Your task to perform on an android device: set an alarm Image 0: 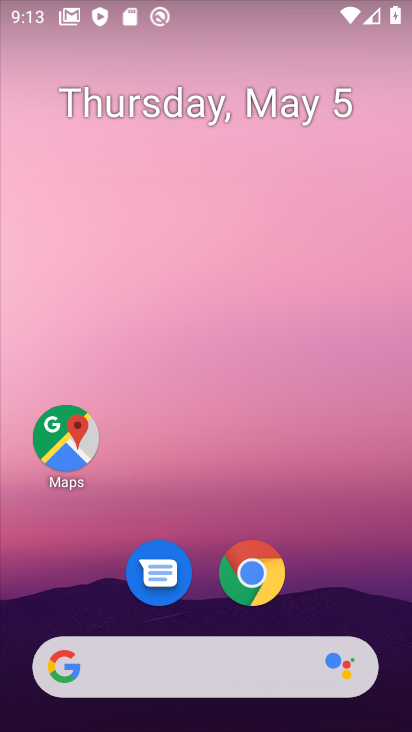
Step 0: drag from (174, 557) to (262, 95)
Your task to perform on an android device: set an alarm Image 1: 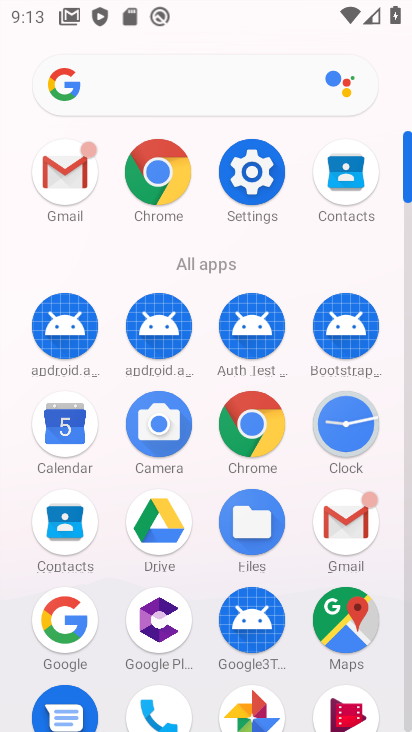
Step 1: click (349, 432)
Your task to perform on an android device: set an alarm Image 2: 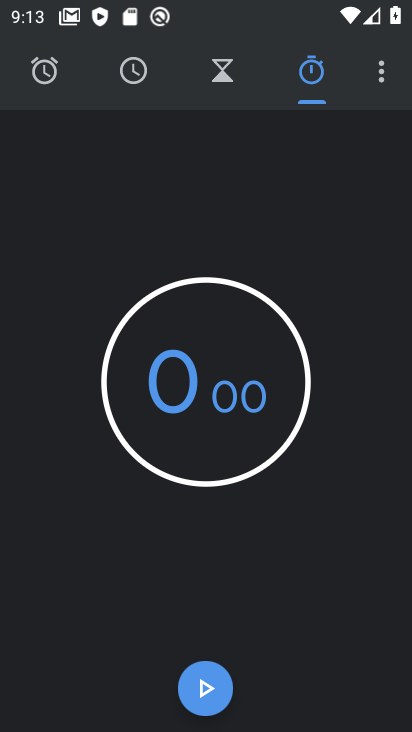
Step 2: click (44, 74)
Your task to perform on an android device: set an alarm Image 3: 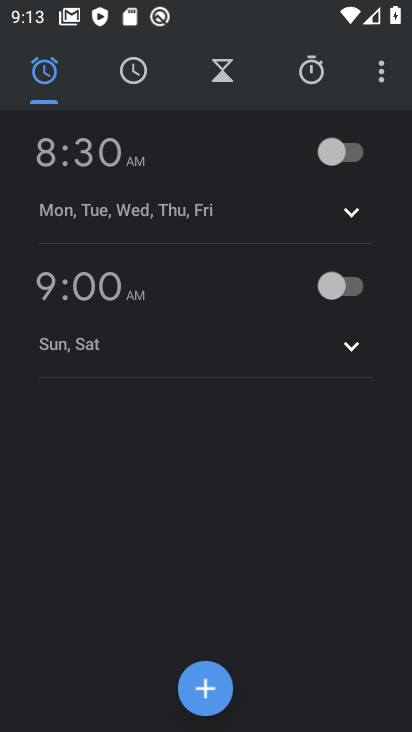
Step 3: click (326, 150)
Your task to perform on an android device: set an alarm Image 4: 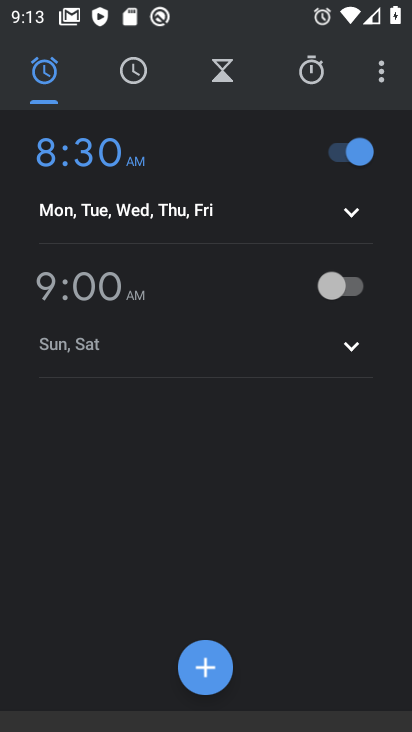
Step 4: task complete